Your task to perform on an android device: uninstall "Google Docs" Image 0: 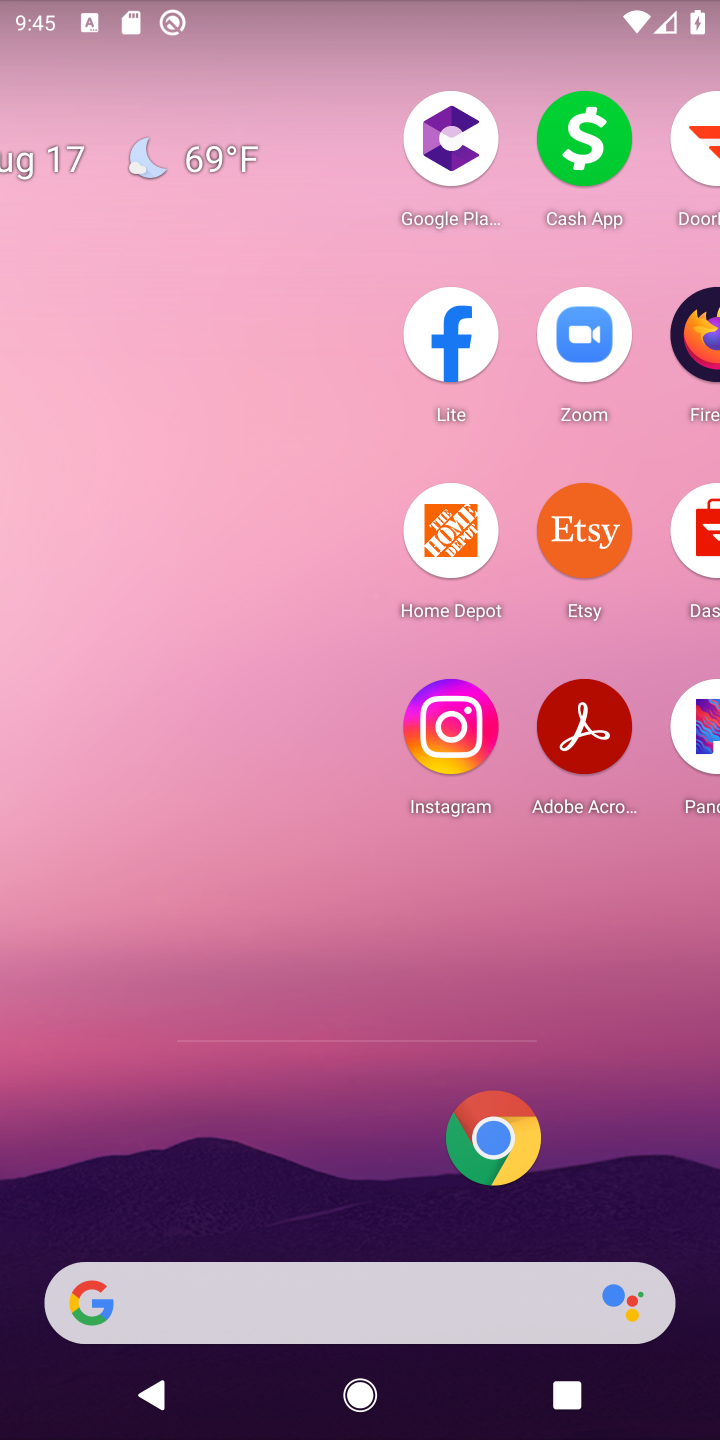
Step 0: click (66, 86)
Your task to perform on an android device: uninstall "Google Docs" Image 1: 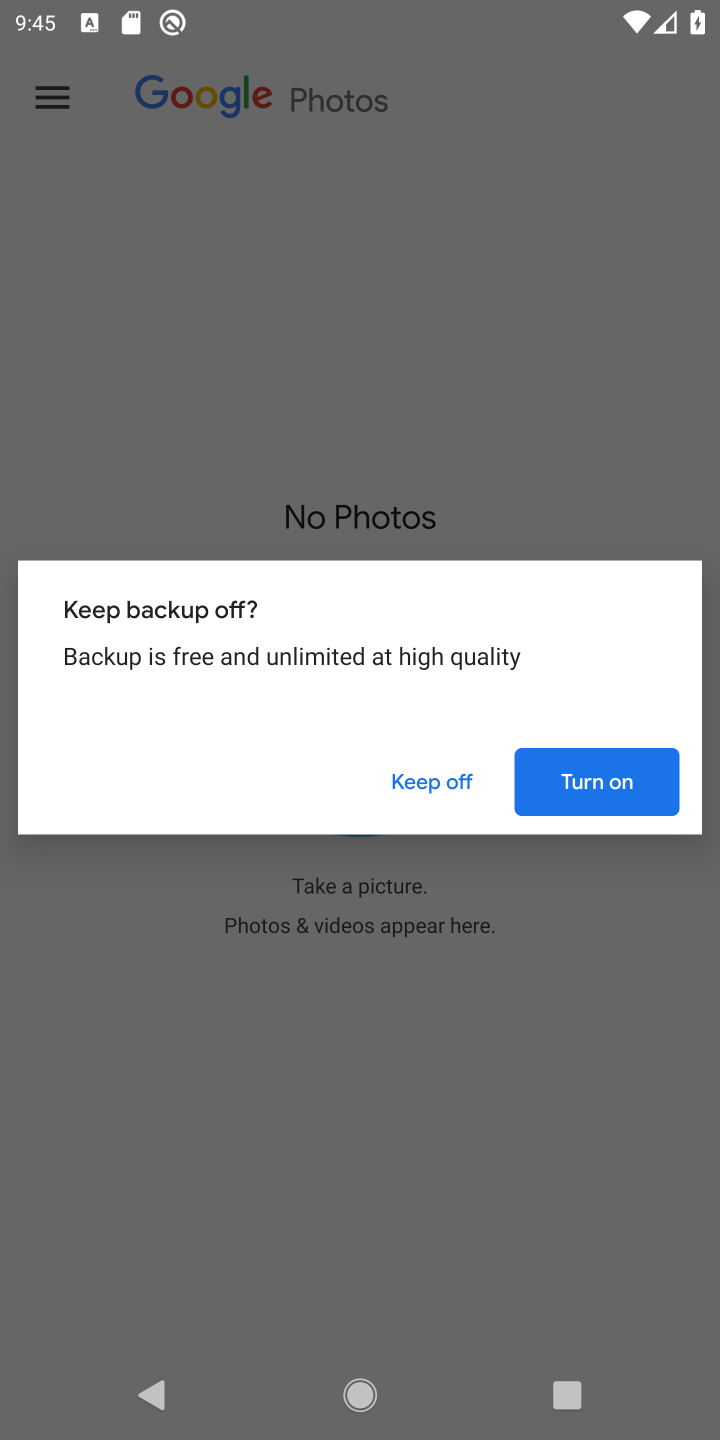
Step 1: press home button
Your task to perform on an android device: uninstall "Google Docs" Image 2: 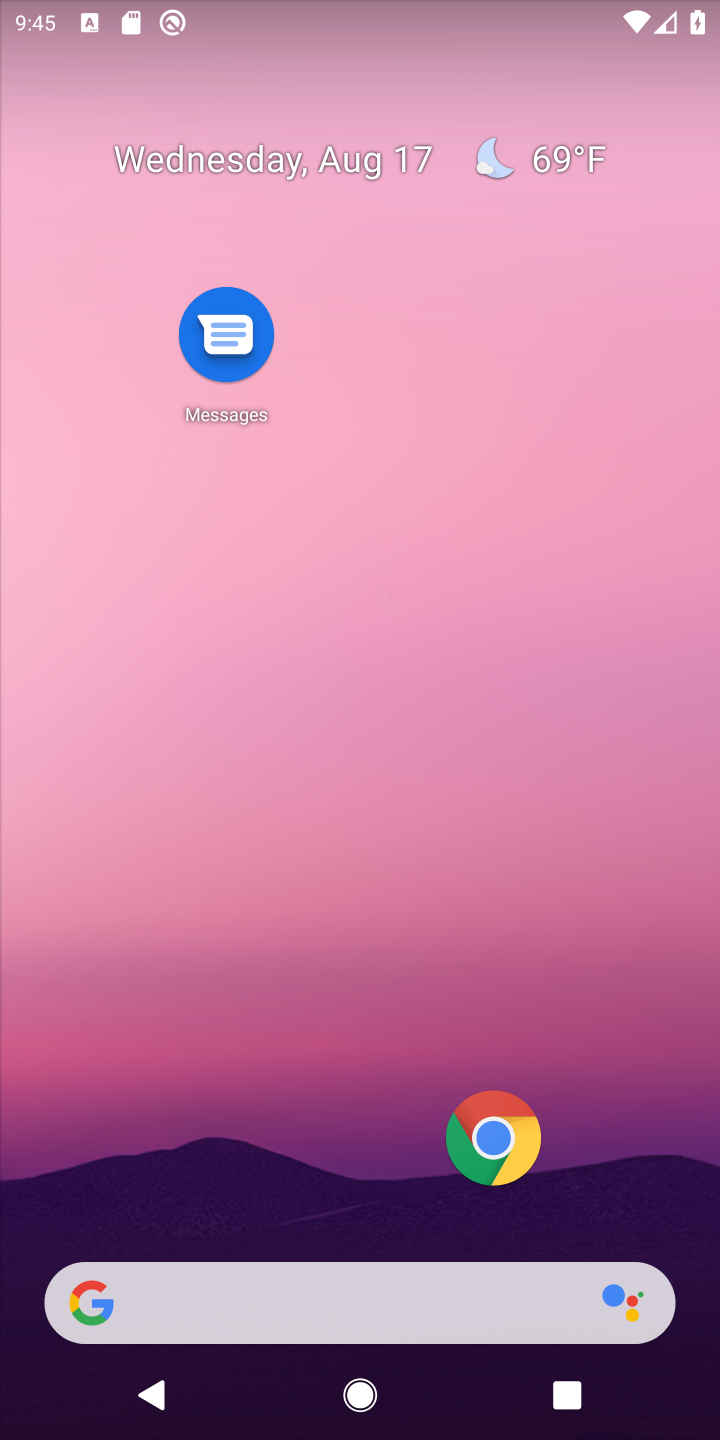
Step 2: drag from (230, 1263) to (343, 474)
Your task to perform on an android device: uninstall "Google Docs" Image 3: 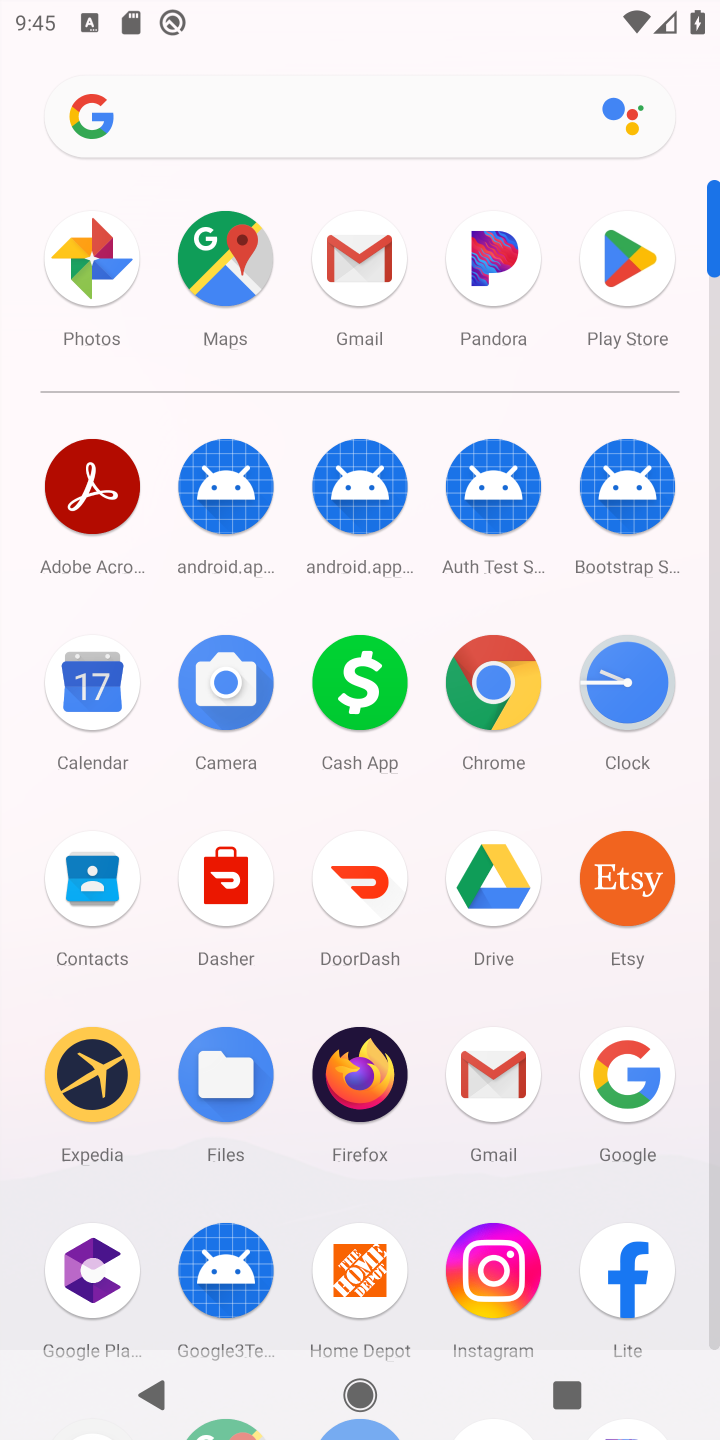
Step 3: click (610, 254)
Your task to perform on an android device: uninstall "Google Docs" Image 4: 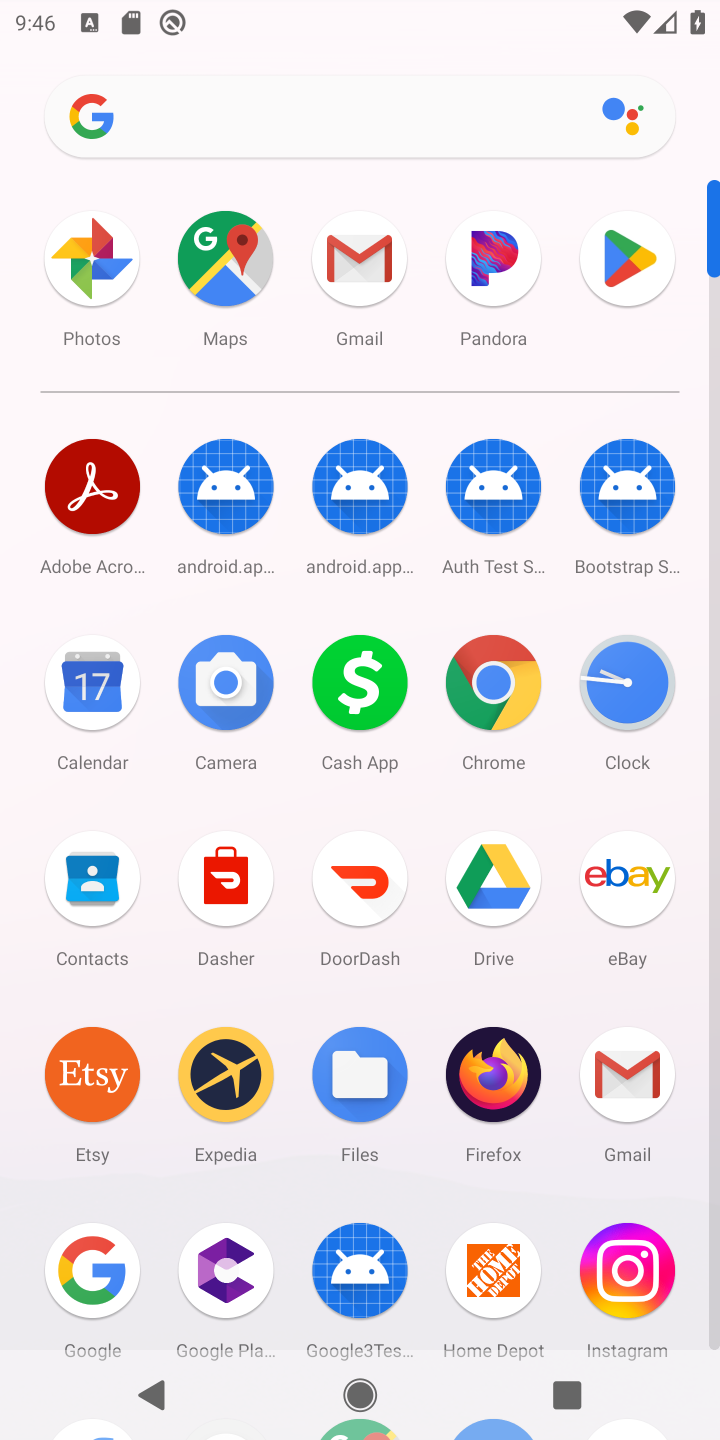
Step 4: click (622, 251)
Your task to perform on an android device: uninstall "Google Docs" Image 5: 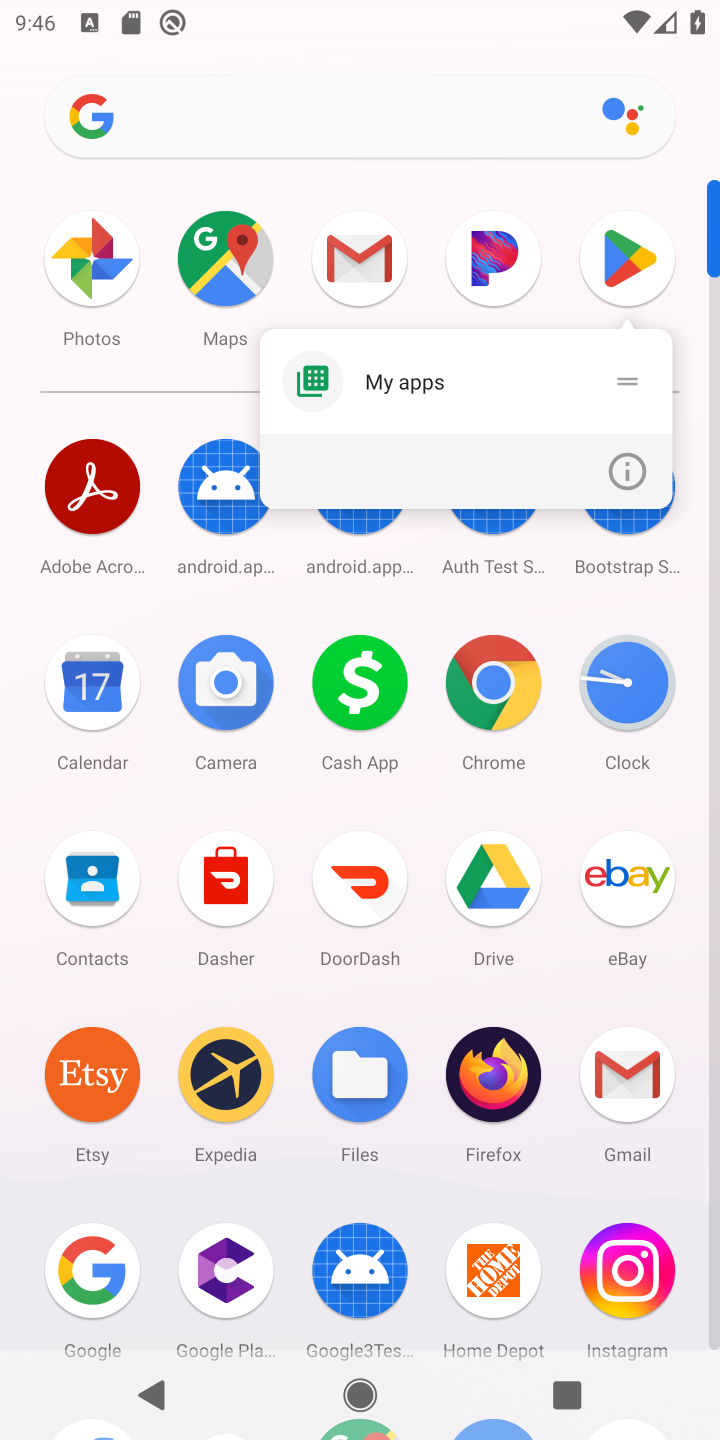
Step 5: click (618, 282)
Your task to perform on an android device: uninstall "Google Docs" Image 6: 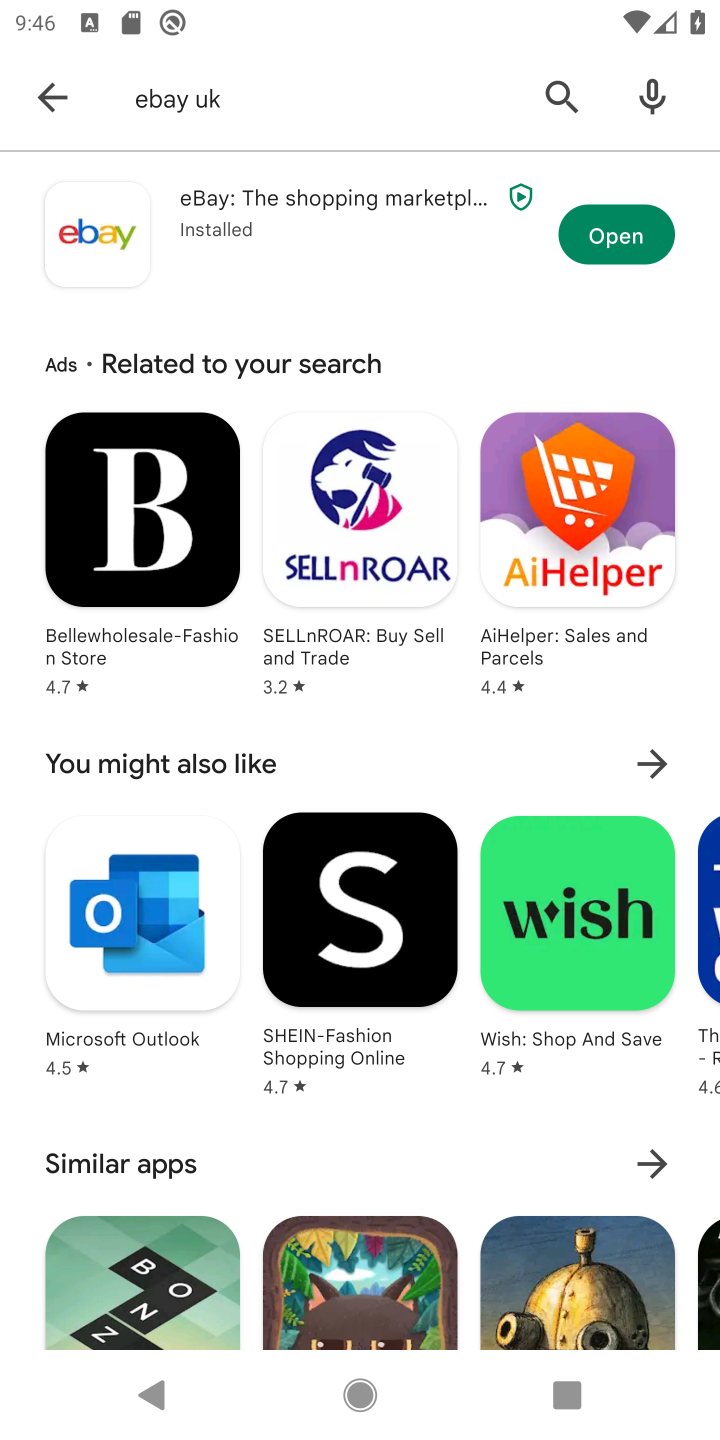
Step 6: click (19, 100)
Your task to perform on an android device: uninstall "Google Docs" Image 7: 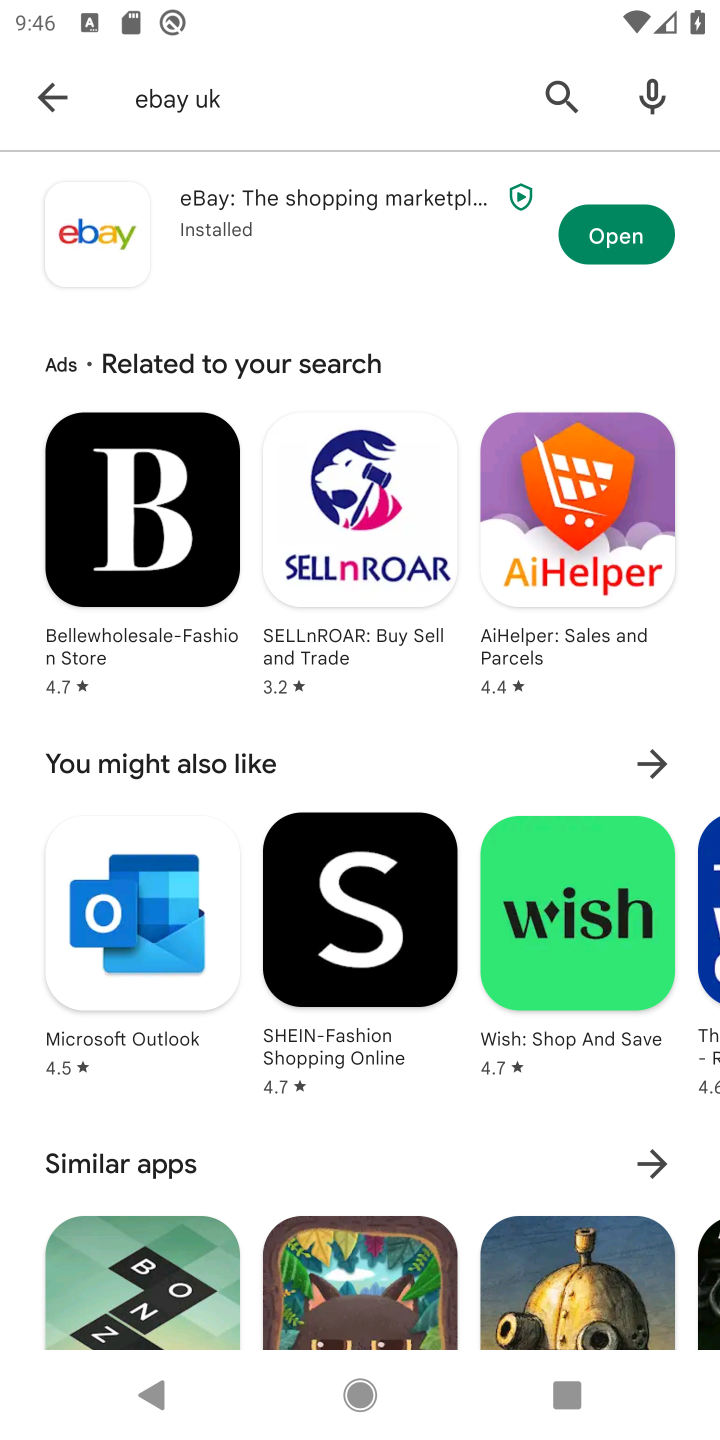
Step 7: click (66, 94)
Your task to perform on an android device: uninstall "Google Docs" Image 8: 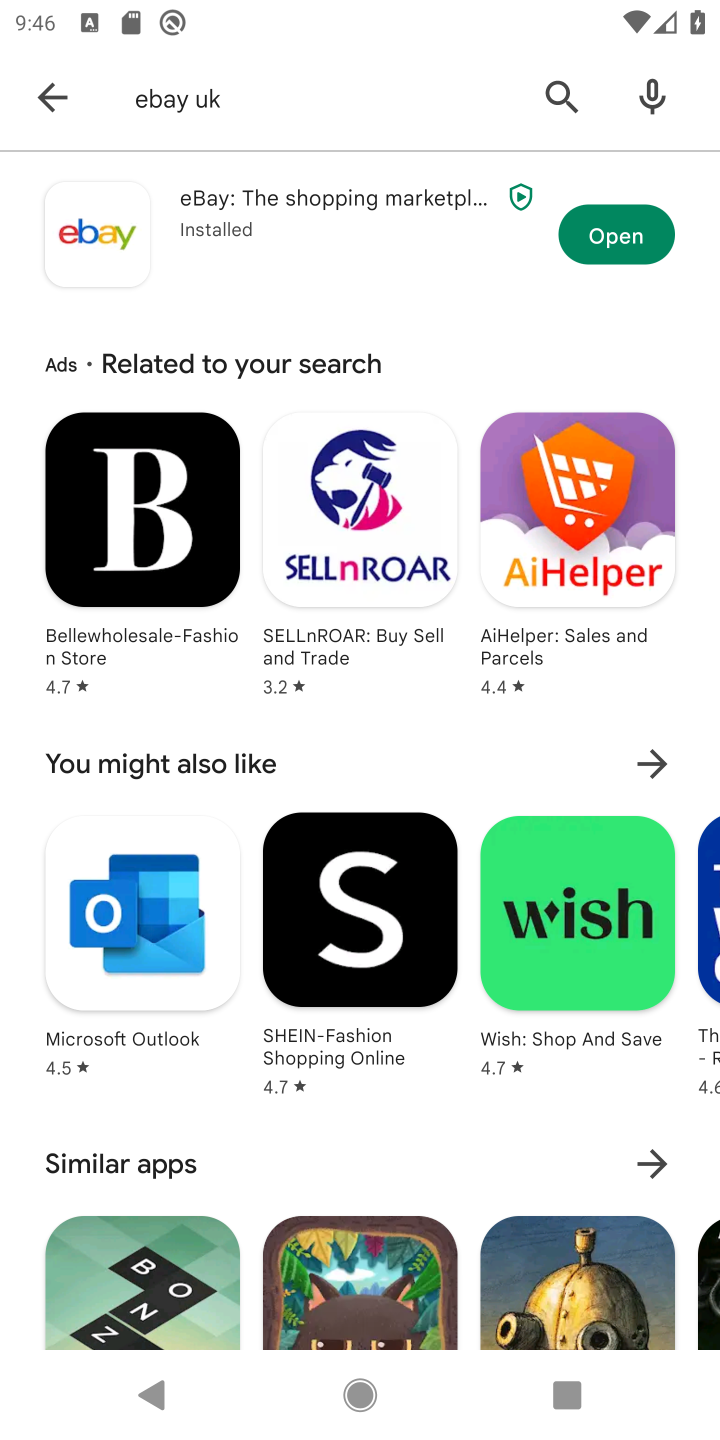
Step 8: click (52, 91)
Your task to perform on an android device: uninstall "Google Docs" Image 9: 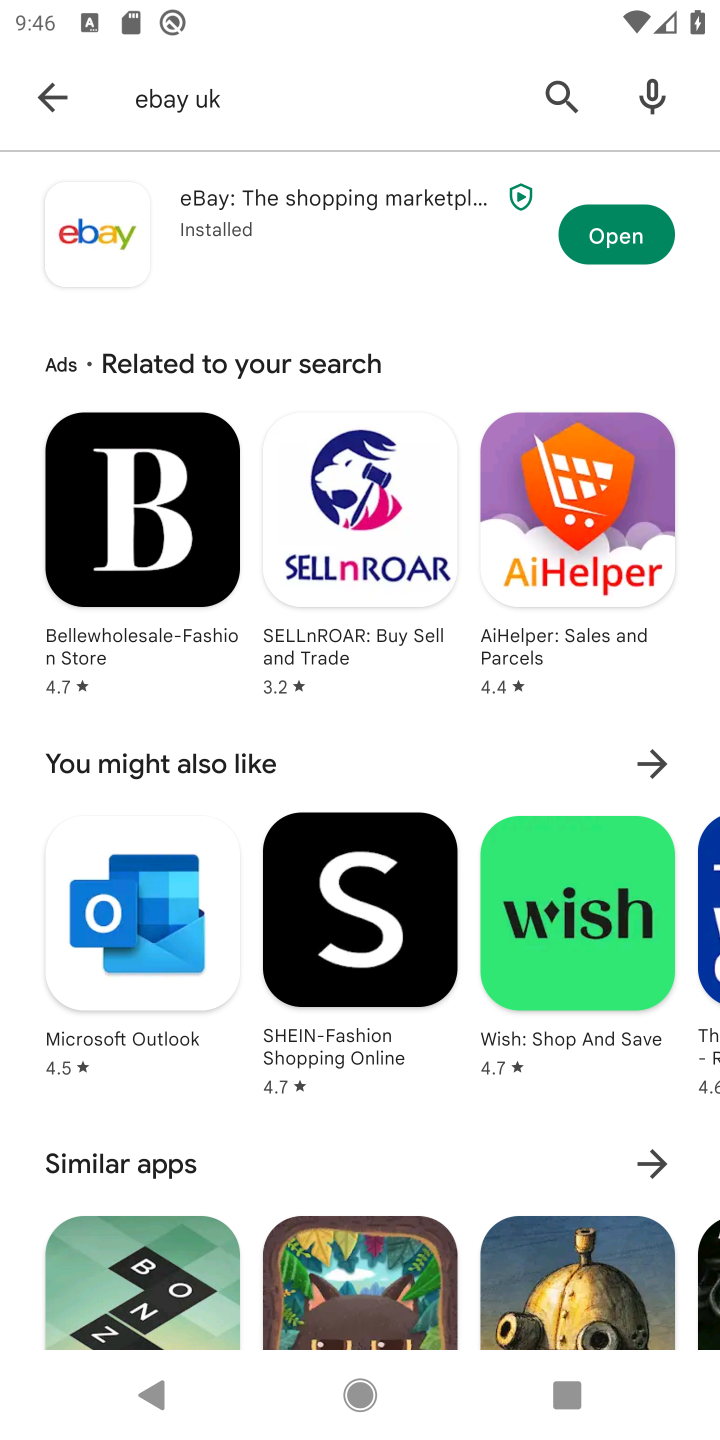
Step 9: click (65, 97)
Your task to perform on an android device: uninstall "Google Docs" Image 10: 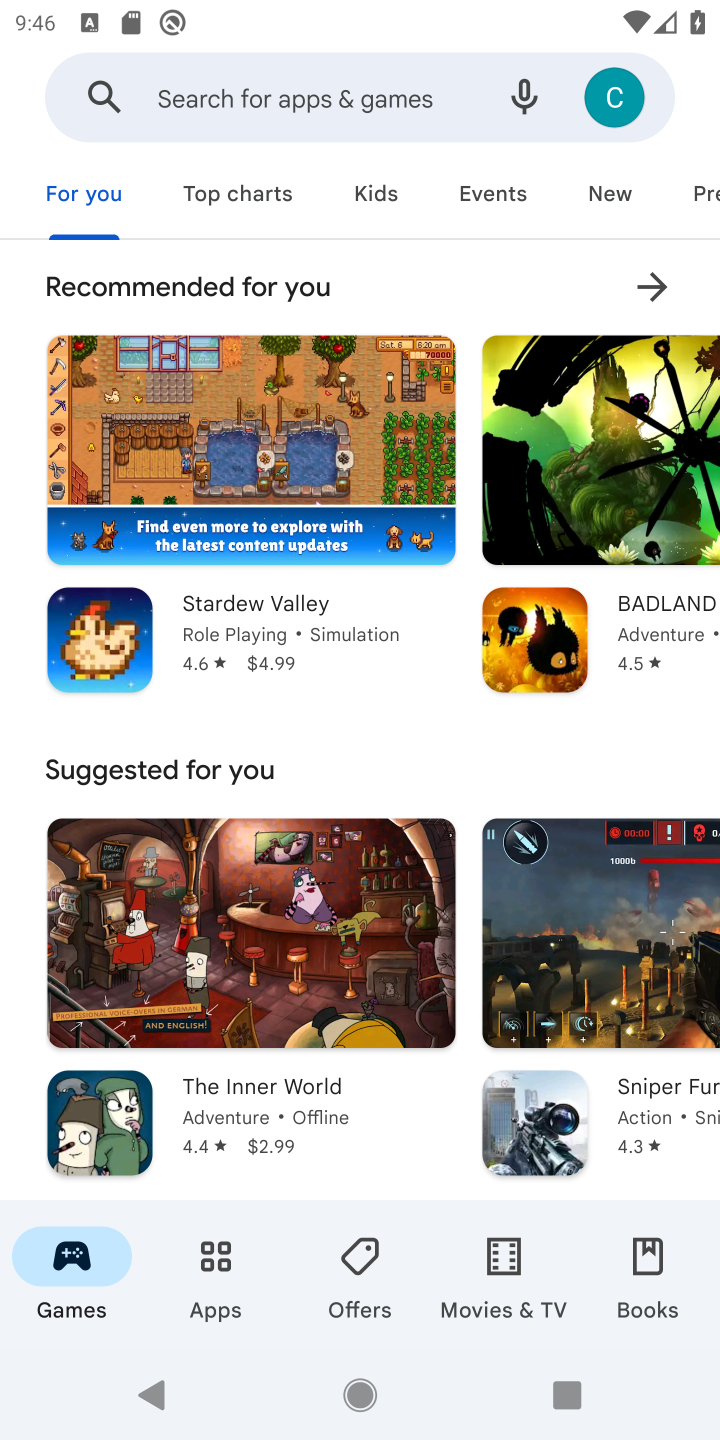
Step 10: click (424, 86)
Your task to perform on an android device: uninstall "Google Docs" Image 11: 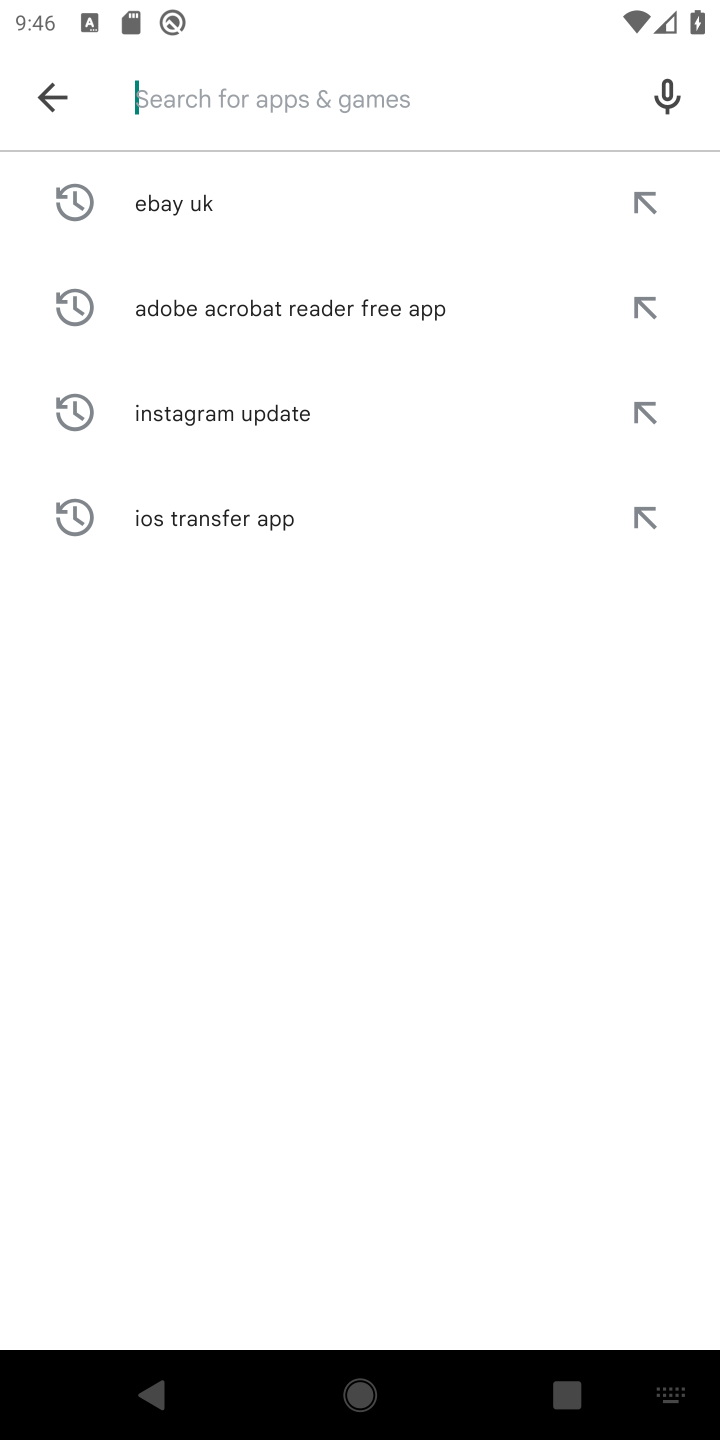
Step 11: type "Google Docs "
Your task to perform on an android device: uninstall "Google Docs" Image 12: 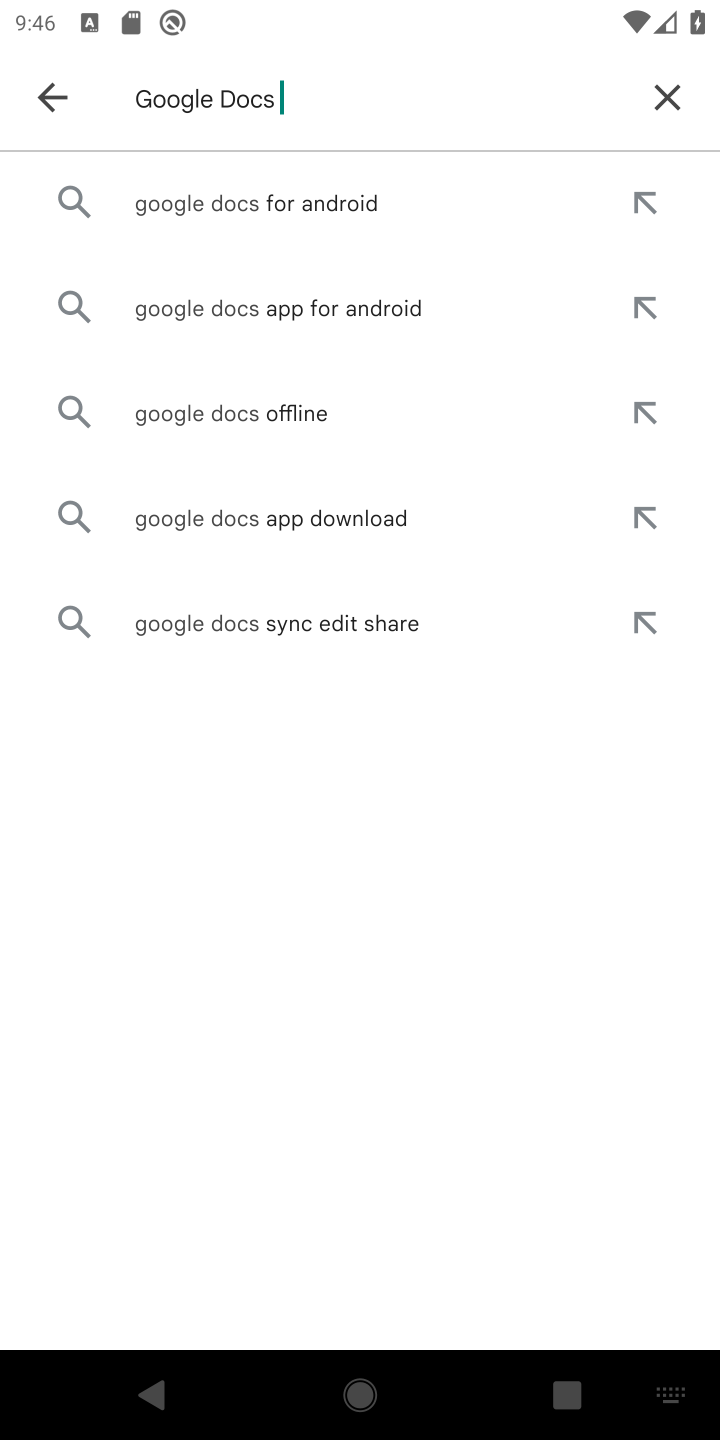
Step 12: click (235, 204)
Your task to perform on an android device: uninstall "Google Docs" Image 13: 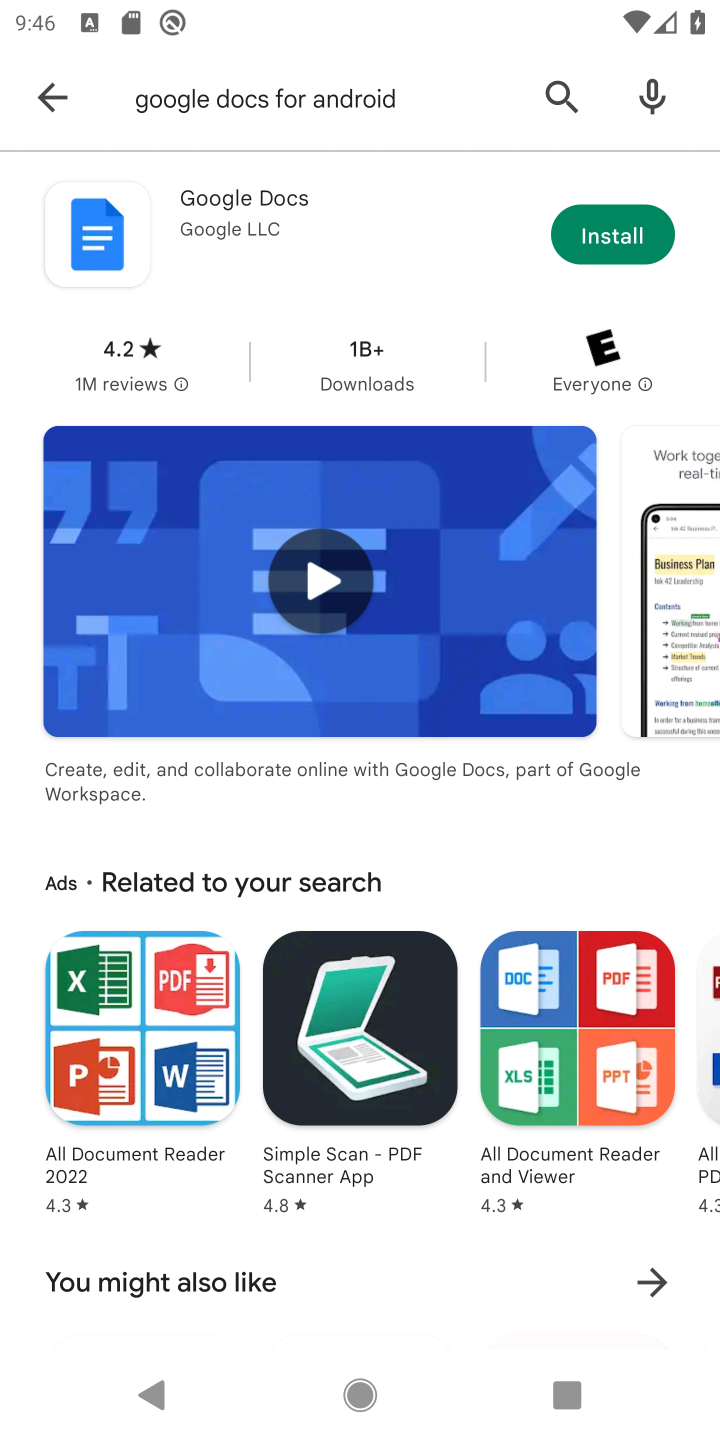
Step 13: click (607, 217)
Your task to perform on an android device: uninstall "Google Docs" Image 14: 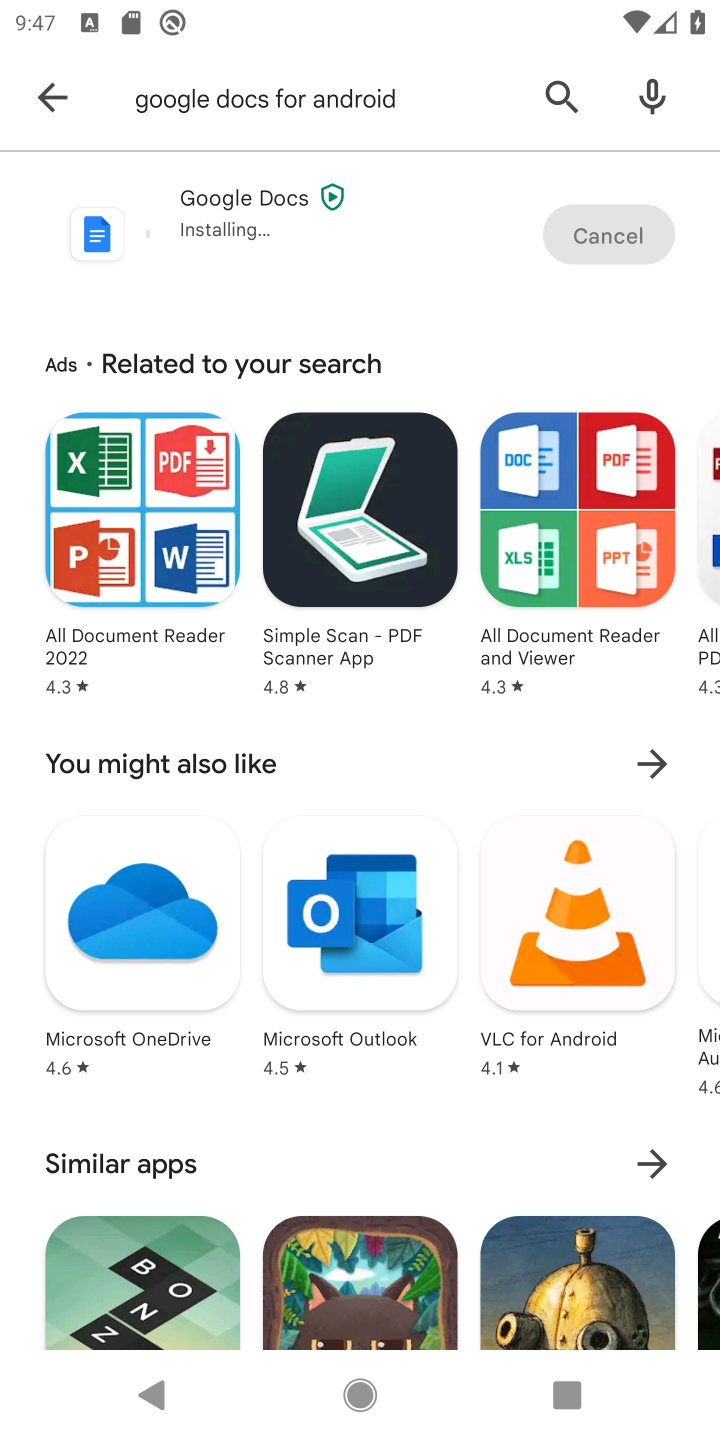
Step 14: click (607, 217)
Your task to perform on an android device: uninstall "Google Docs" Image 15: 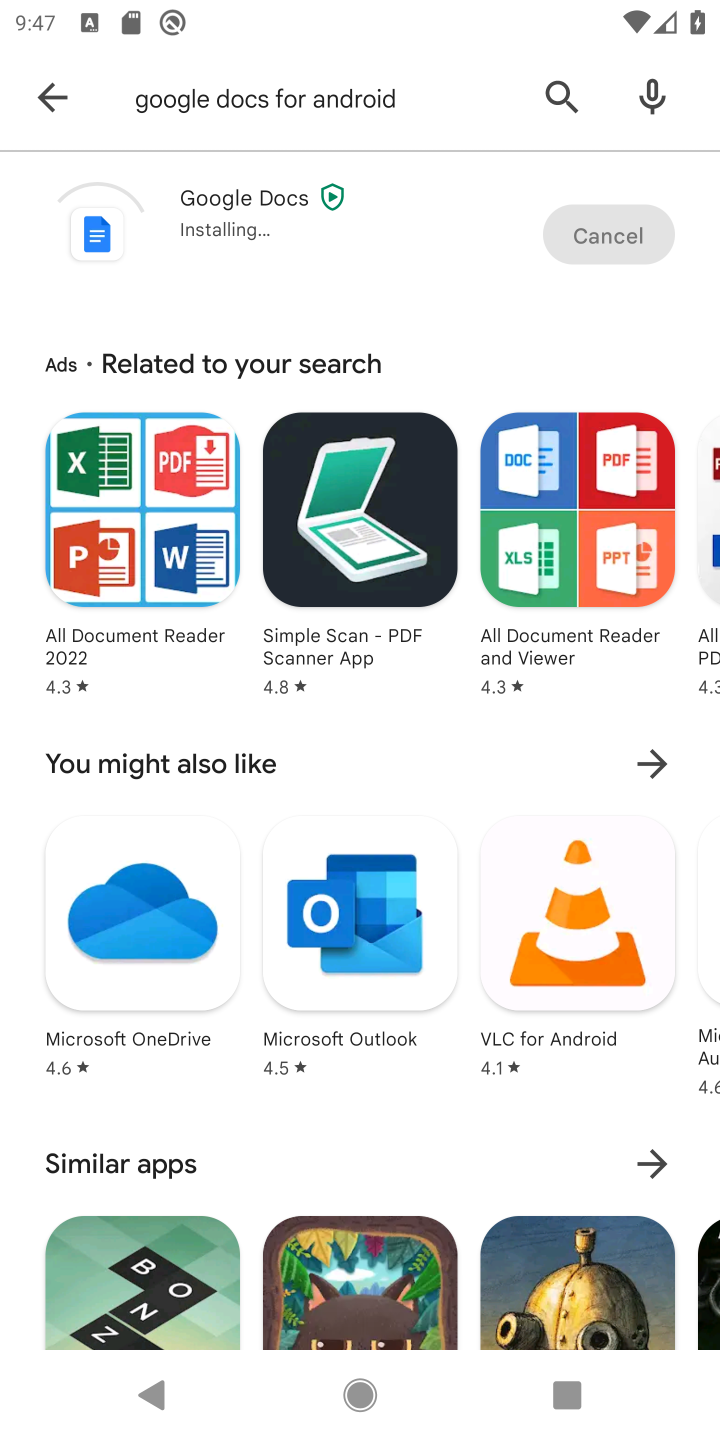
Step 15: click (282, 236)
Your task to perform on an android device: uninstall "Google Docs" Image 16: 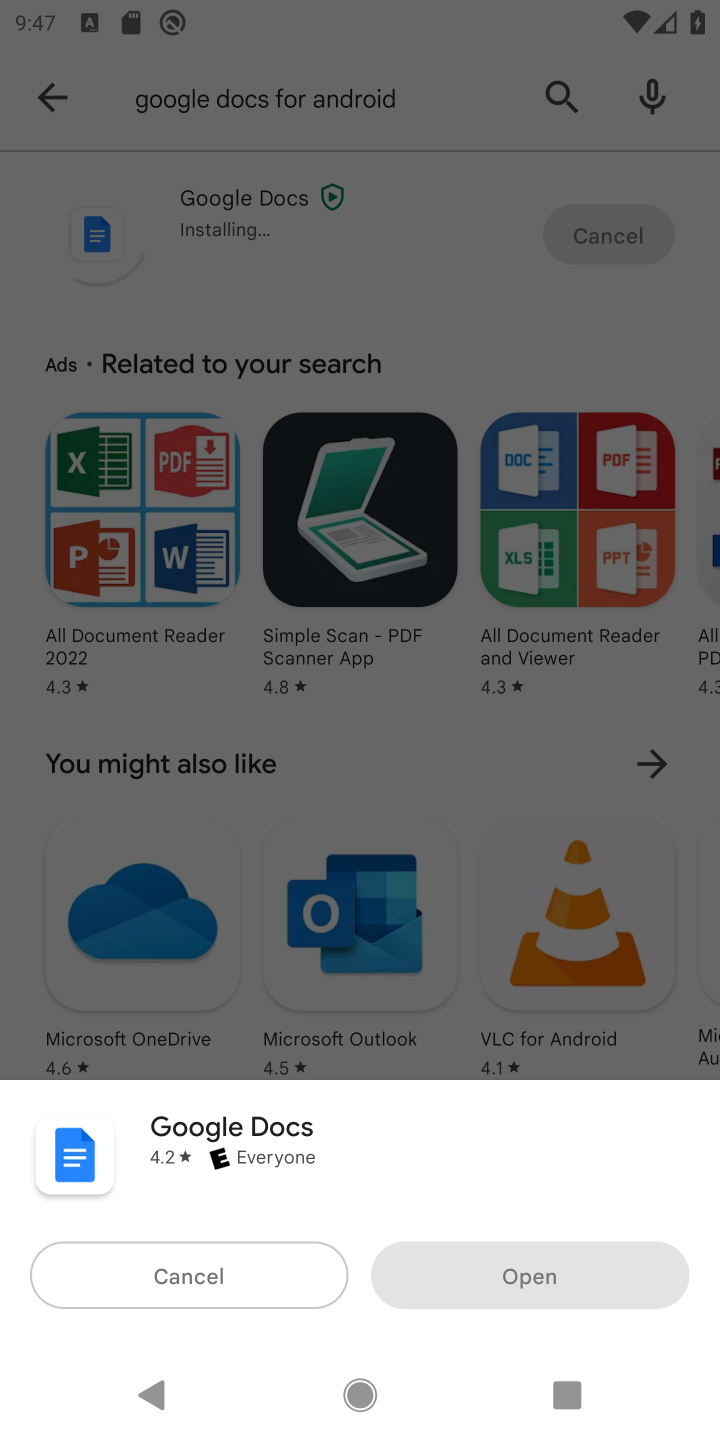
Step 16: click (194, 1257)
Your task to perform on an android device: uninstall "Google Docs" Image 17: 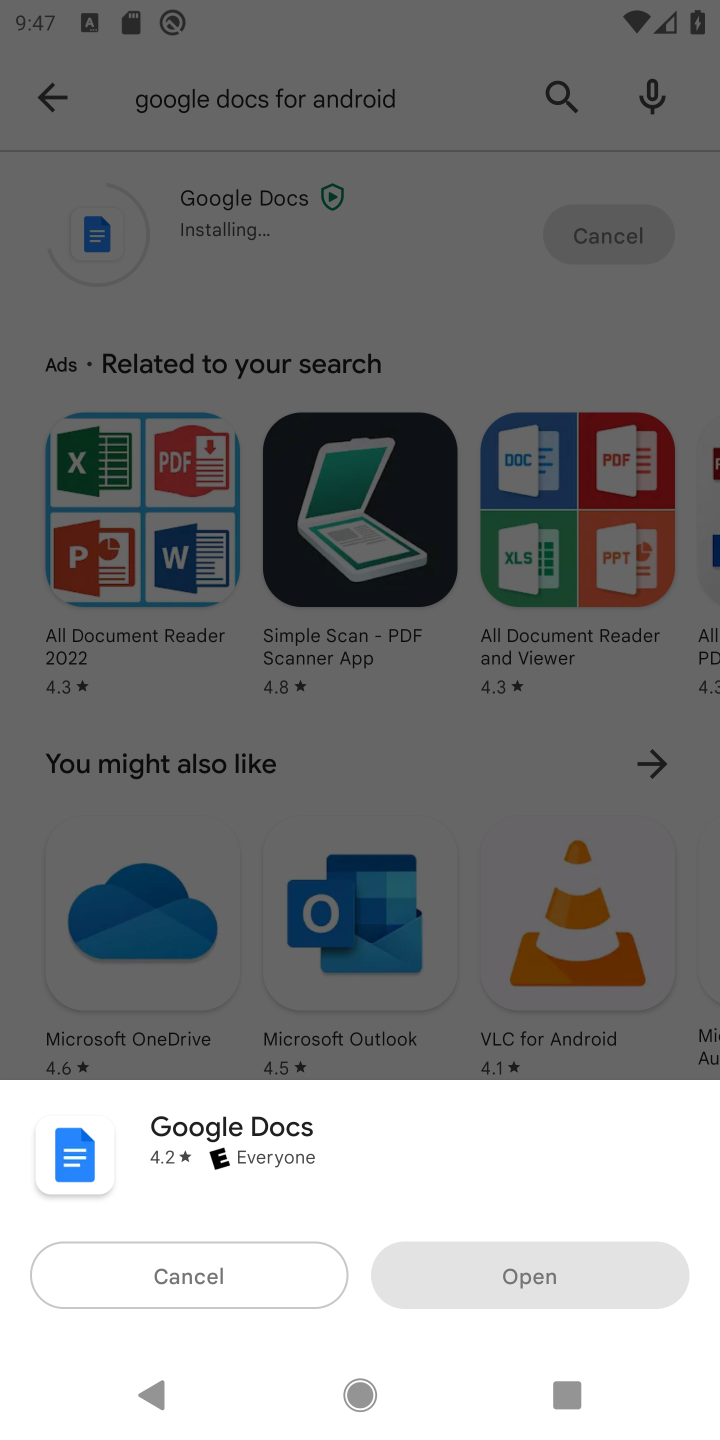
Step 17: click (205, 1271)
Your task to perform on an android device: uninstall "Google Docs" Image 18: 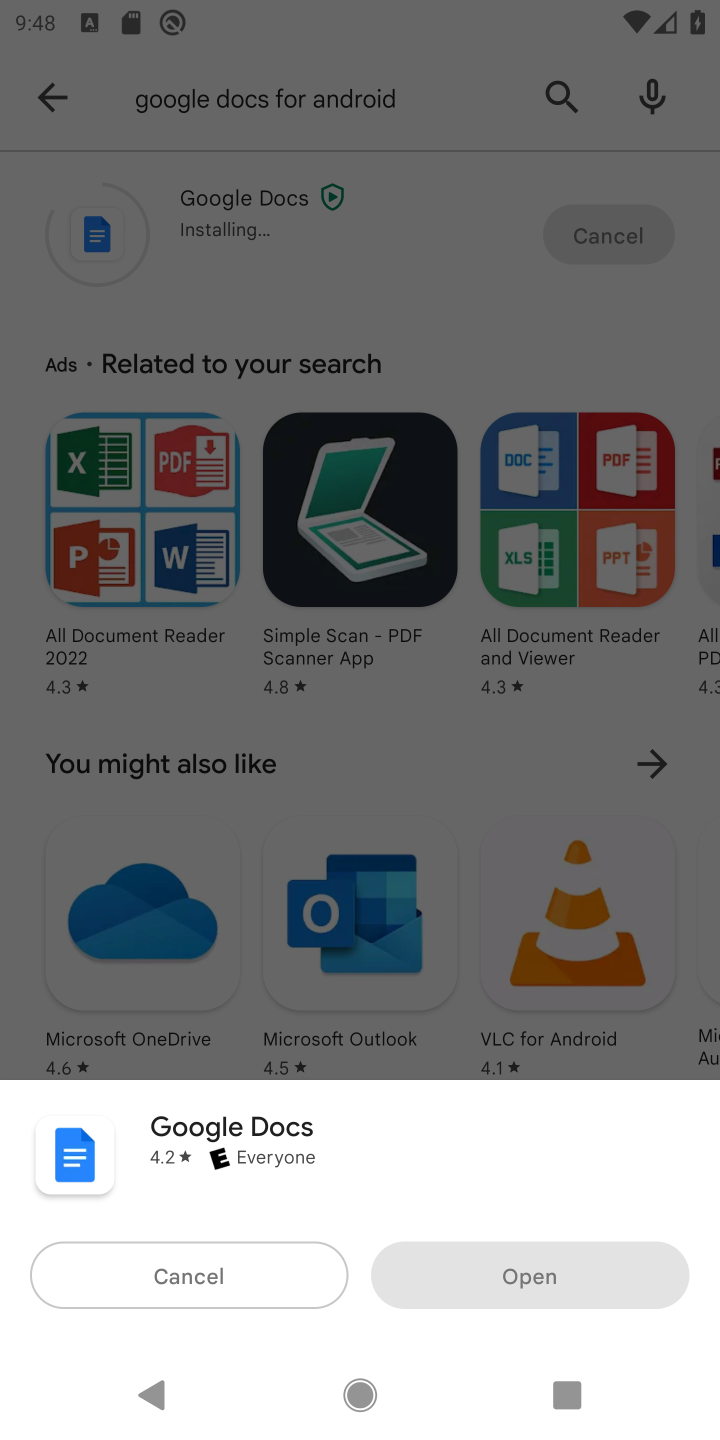
Step 18: click (205, 1263)
Your task to perform on an android device: uninstall "Google Docs" Image 19: 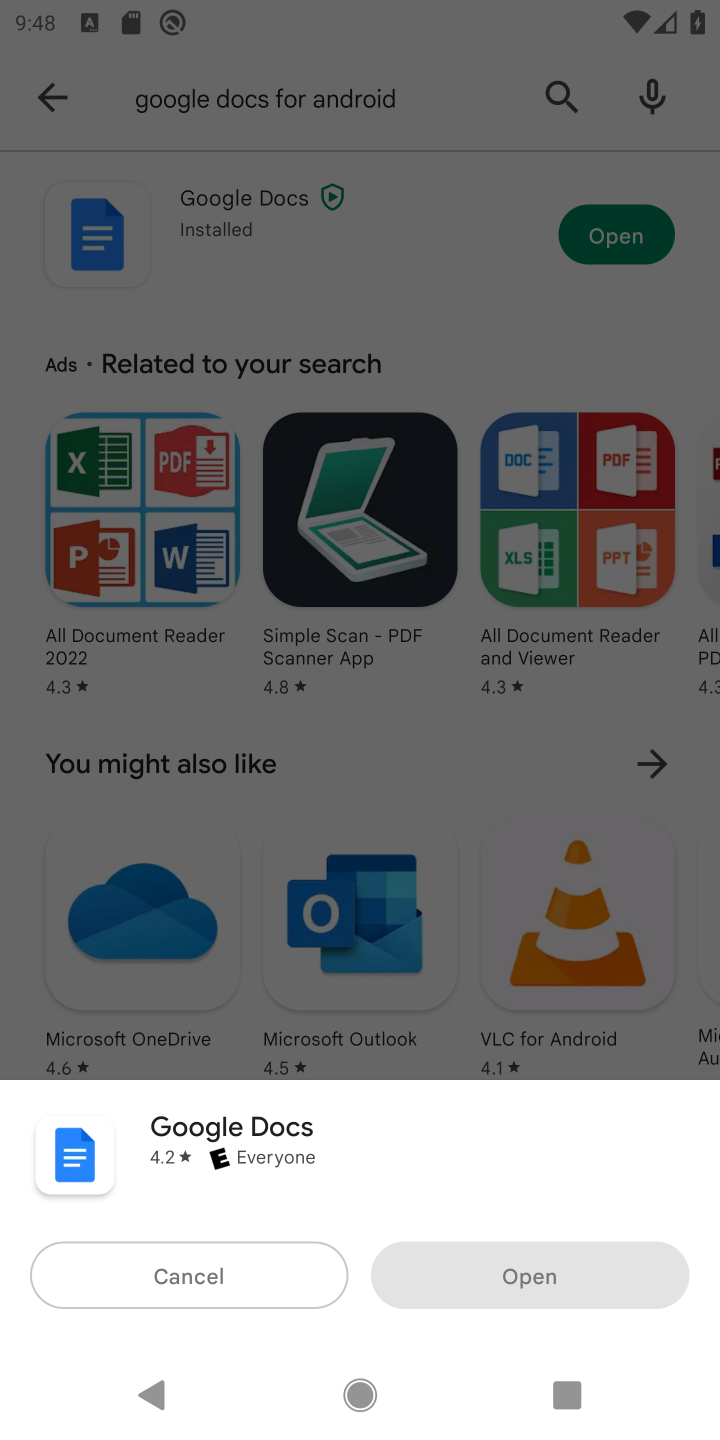
Step 19: click (556, 249)
Your task to perform on an android device: uninstall "Google Docs" Image 20: 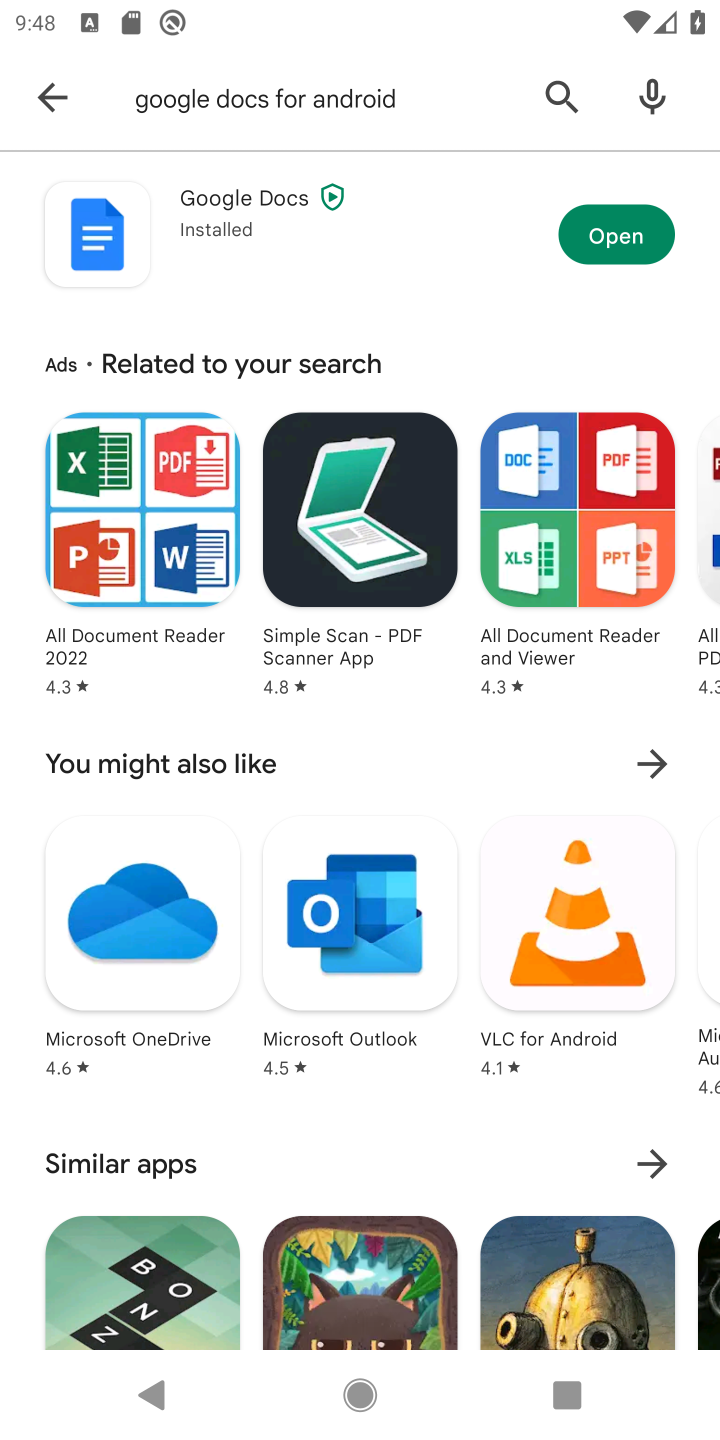
Step 20: click (431, 242)
Your task to perform on an android device: uninstall "Google Docs" Image 21: 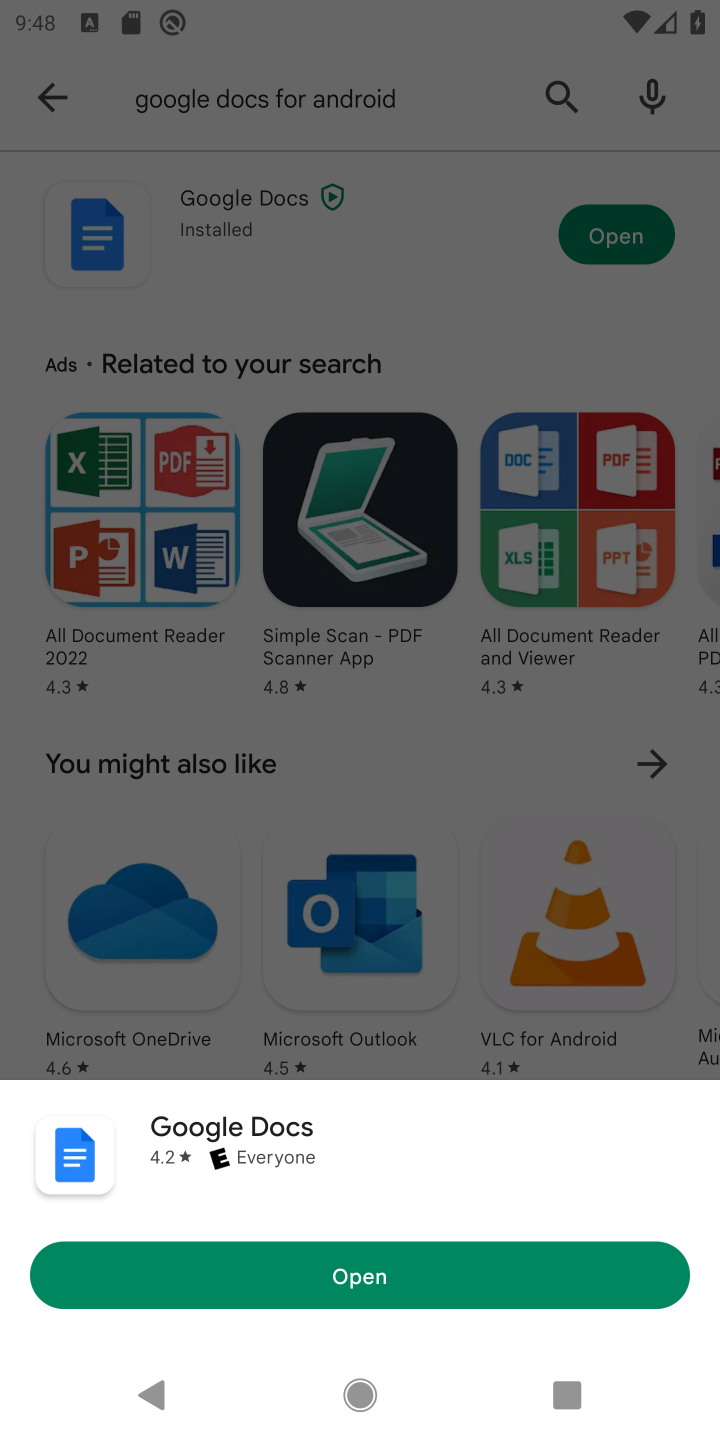
Step 21: click (328, 1260)
Your task to perform on an android device: uninstall "Google Docs" Image 22: 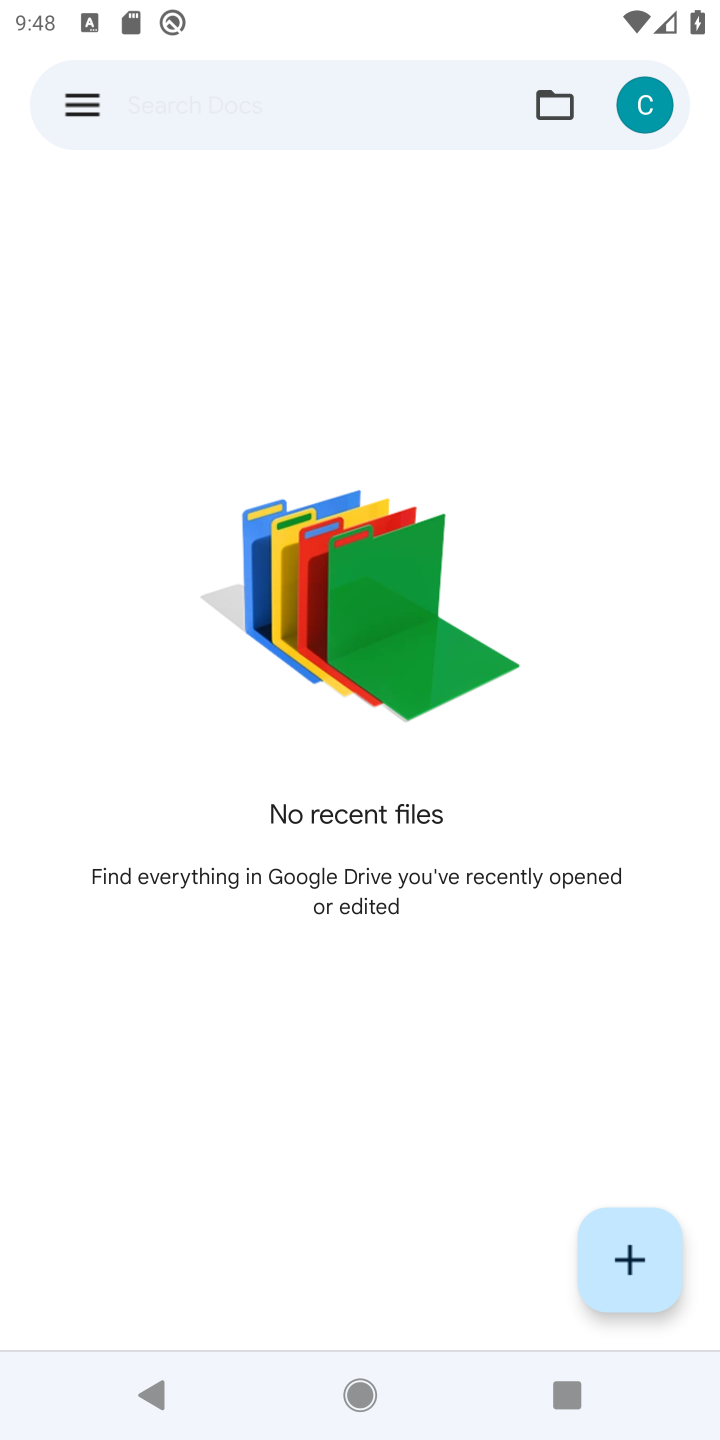
Step 22: press back button
Your task to perform on an android device: uninstall "Google Docs" Image 23: 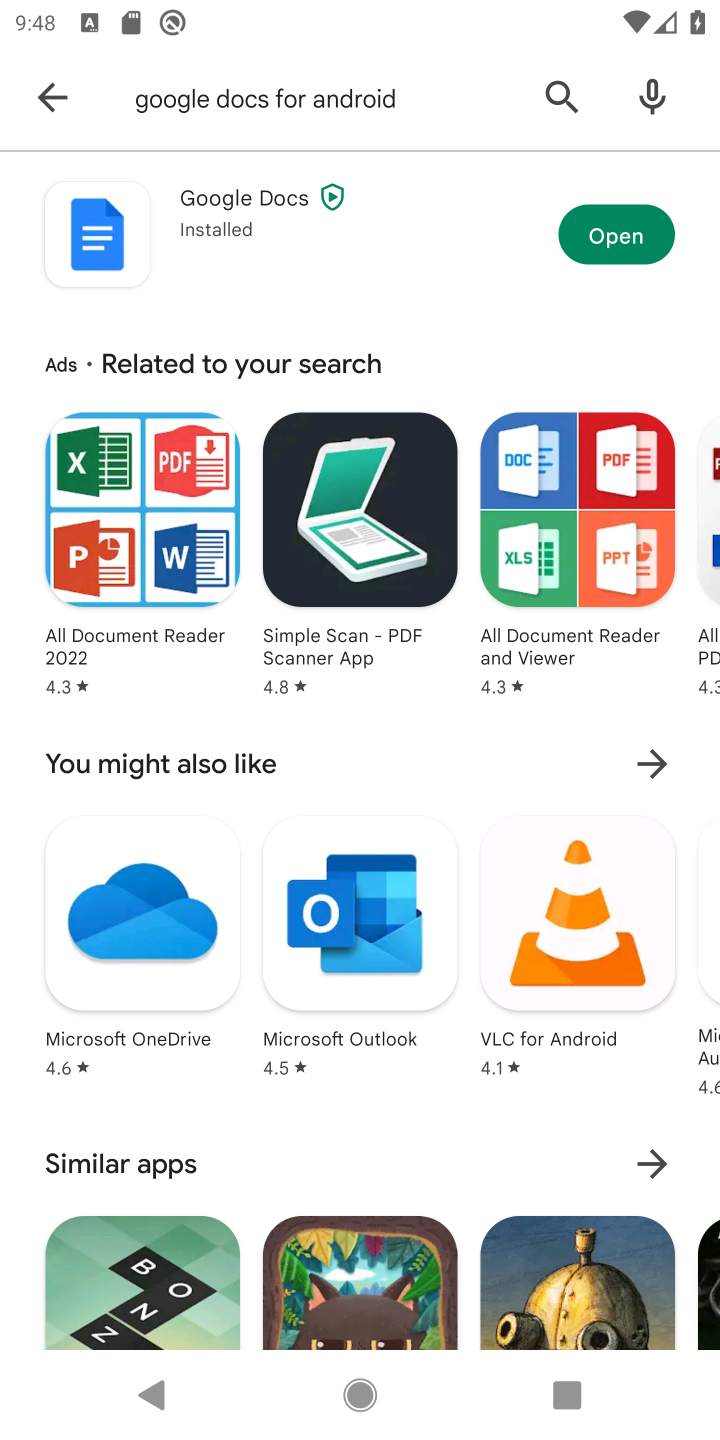
Step 23: click (109, 216)
Your task to perform on an android device: uninstall "Google Docs" Image 24: 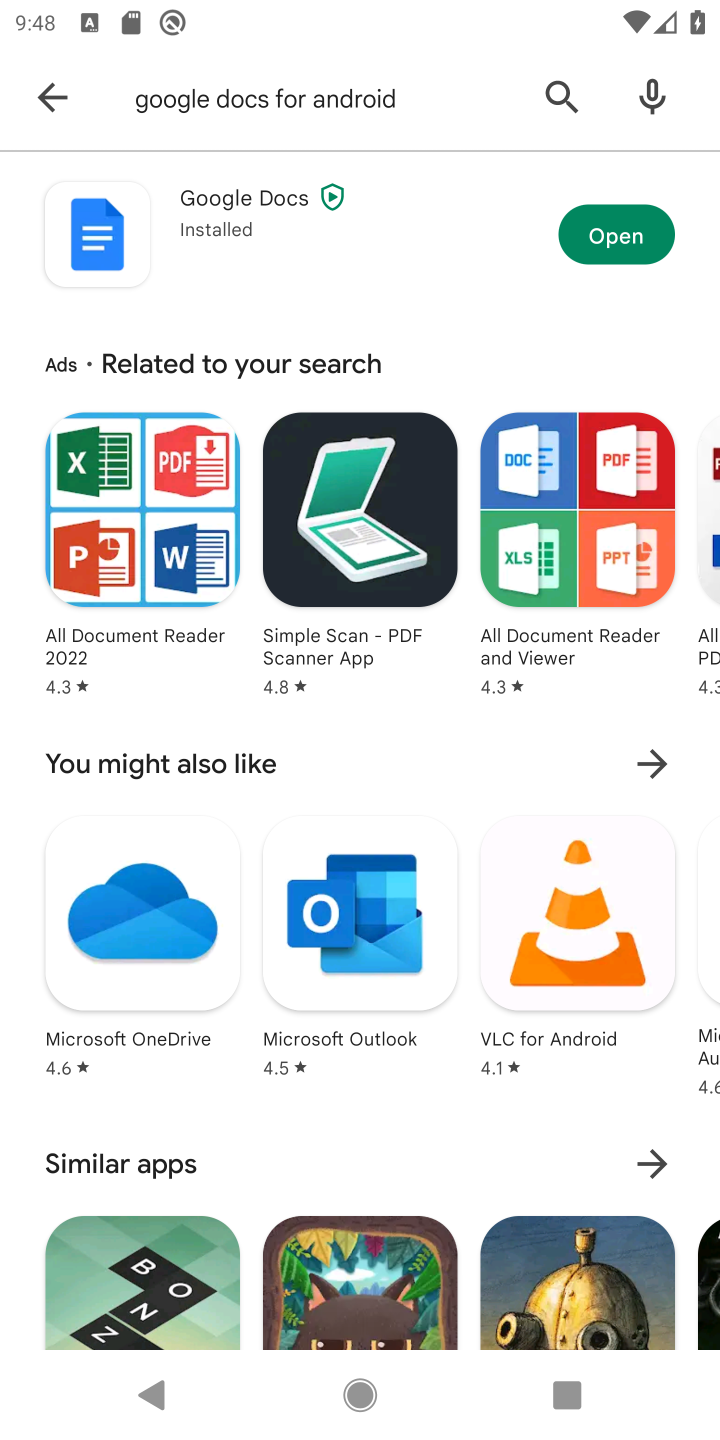
Step 24: click (243, 196)
Your task to perform on an android device: uninstall "Google Docs" Image 25: 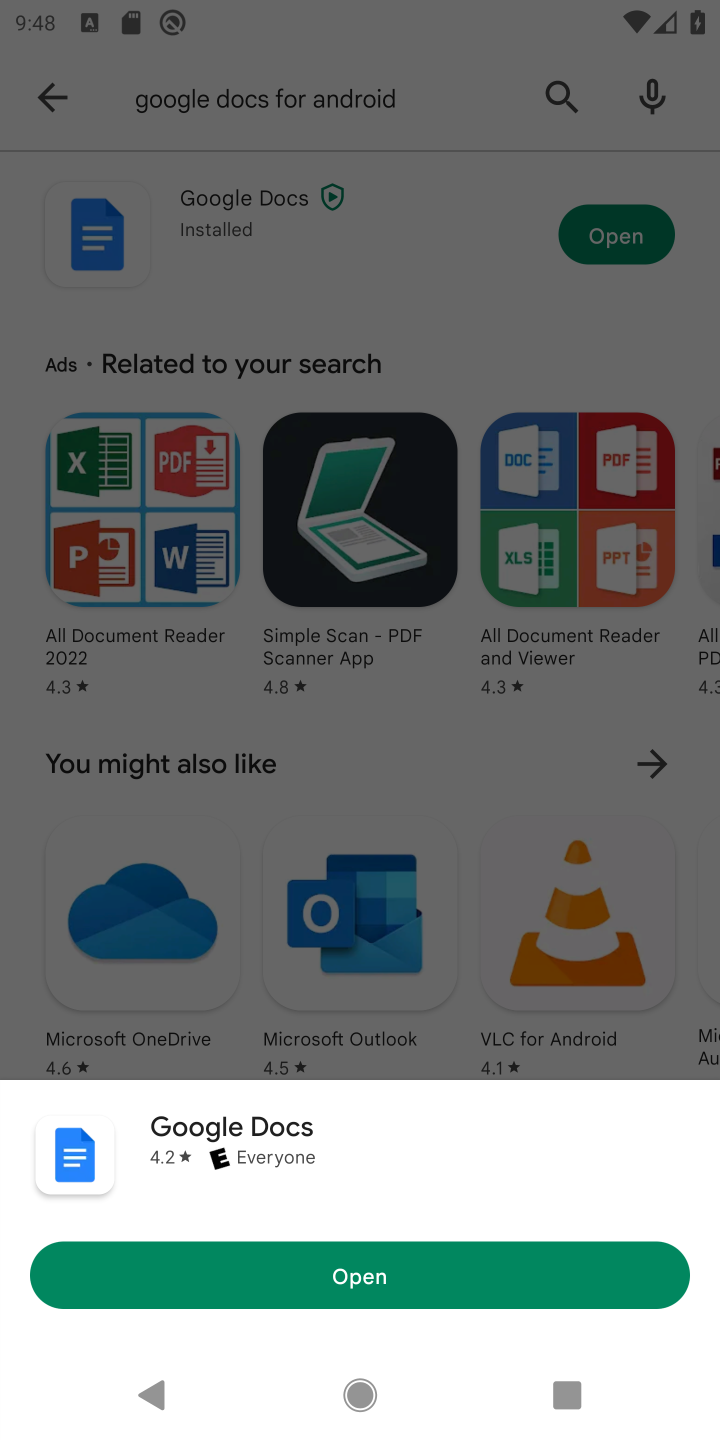
Step 25: click (243, 196)
Your task to perform on an android device: uninstall "Google Docs" Image 26: 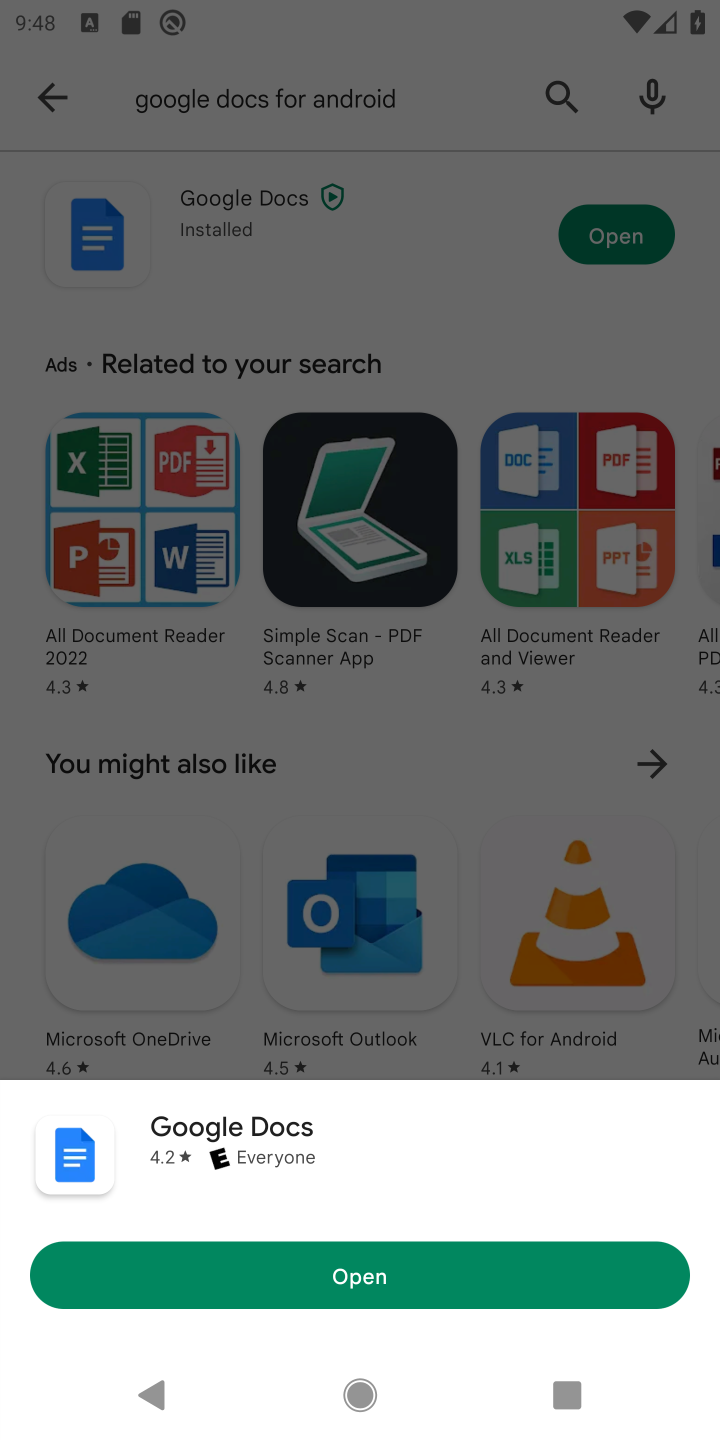
Step 26: click (243, 196)
Your task to perform on an android device: uninstall "Google Docs" Image 27: 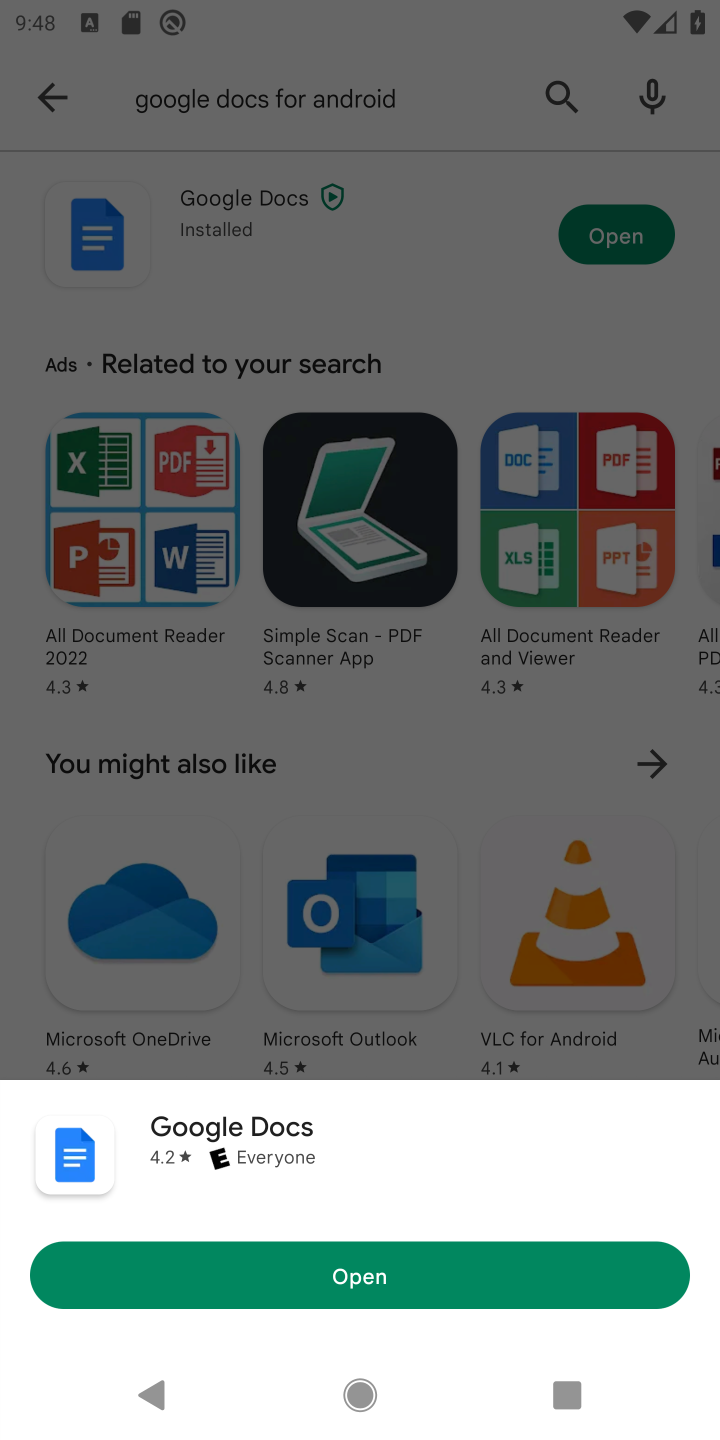
Step 27: task complete